Your task to perform on an android device: Open location settings Image 0: 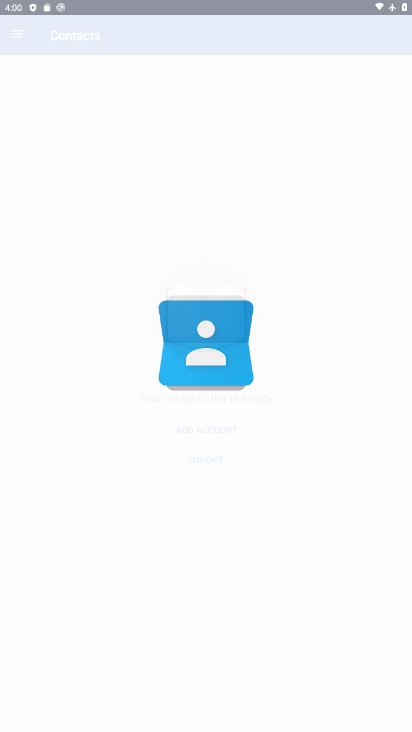
Step 0: drag from (209, 642) to (179, 125)
Your task to perform on an android device: Open location settings Image 1: 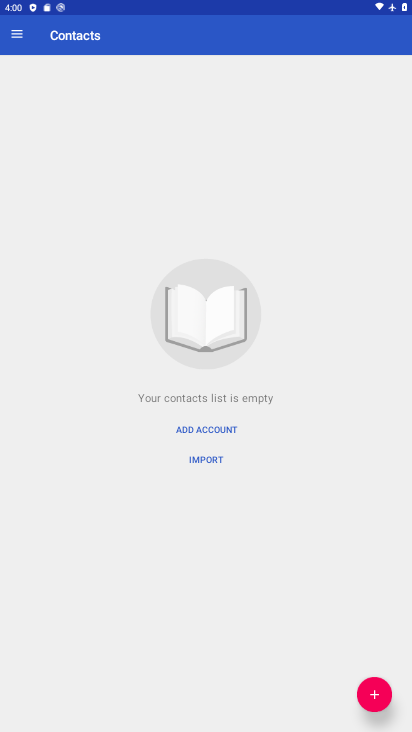
Step 1: press back button
Your task to perform on an android device: Open location settings Image 2: 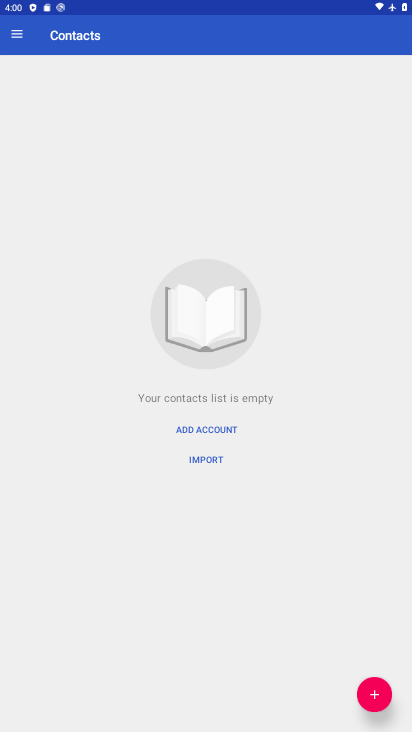
Step 2: press back button
Your task to perform on an android device: Open location settings Image 3: 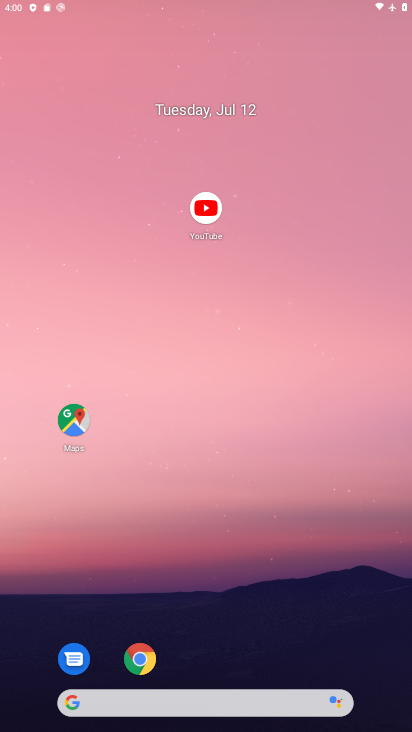
Step 3: press back button
Your task to perform on an android device: Open location settings Image 4: 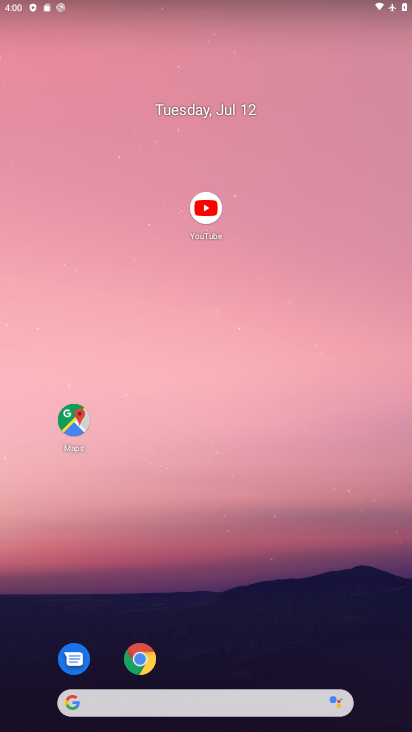
Step 4: press home button
Your task to perform on an android device: Open location settings Image 5: 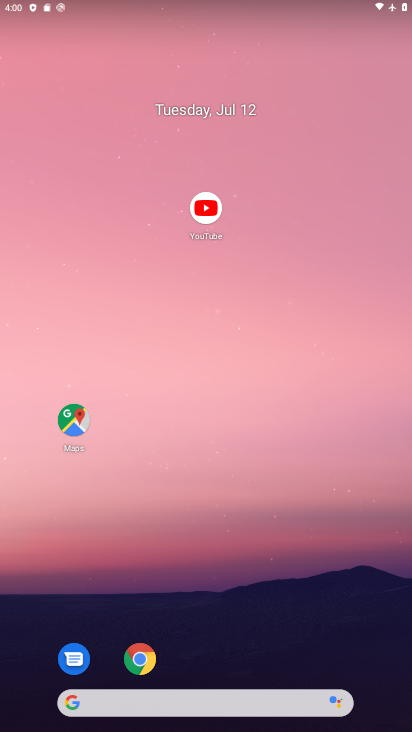
Step 5: drag from (286, 678) to (175, 75)
Your task to perform on an android device: Open location settings Image 6: 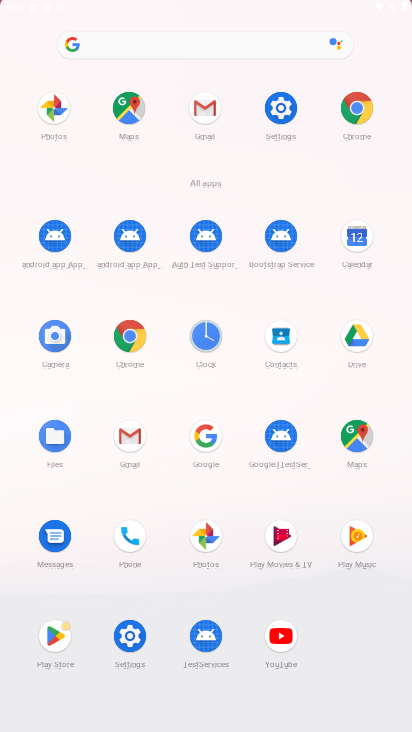
Step 6: drag from (285, 599) to (215, 161)
Your task to perform on an android device: Open location settings Image 7: 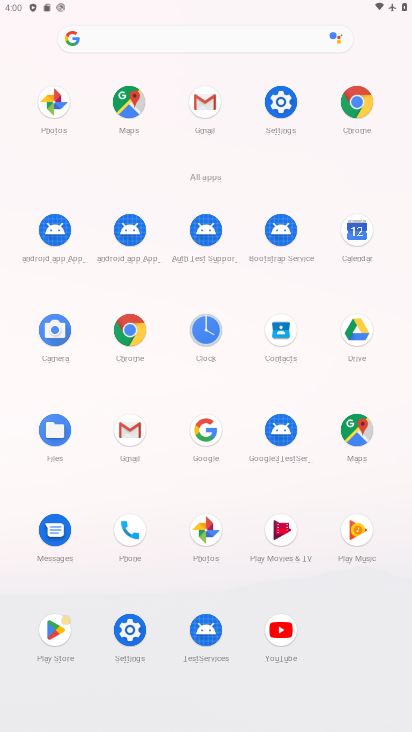
Step 7: click (122, 615)
Your task to perform on an android device: Open location settings Image 8: 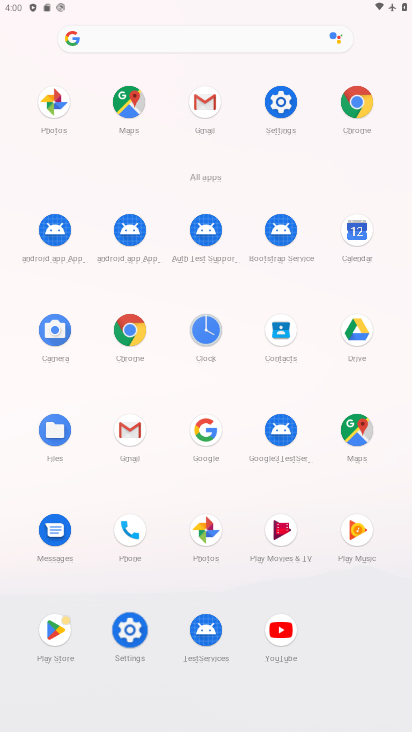
Step 8: click (126, 615)
Your task to perform on an android device: Open location settings Image 9: 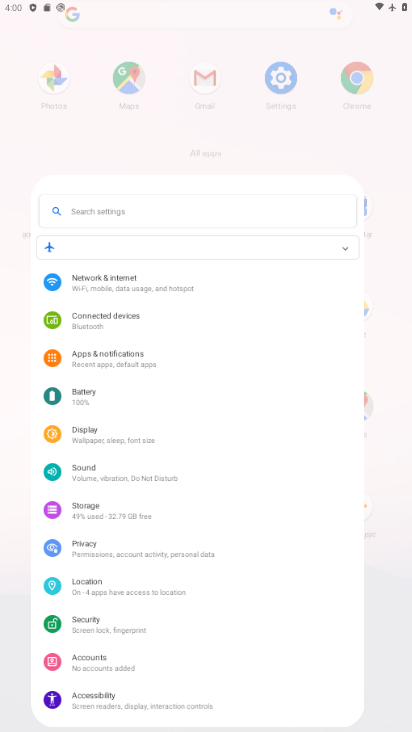
Step 9: click (127, 615)
Your task to perform on an android device: Open location settings Image 10: 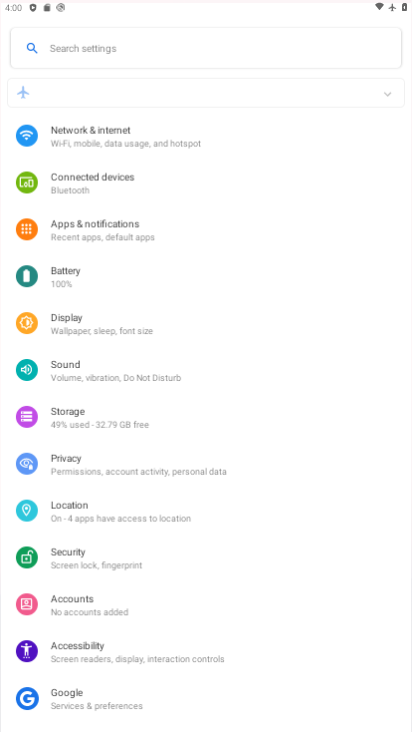
Step 10: click (134, 627)
Your task to perform on an android device: Open location settings Image 11: 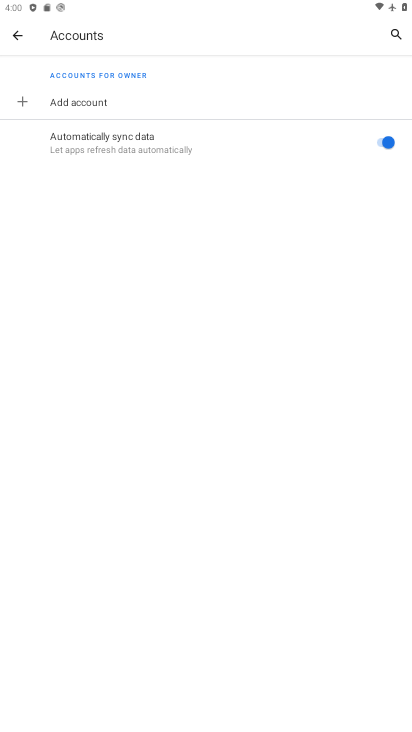
Step 11: click (15, 32)
Your task to perform on an android device: Open location settings Image 12: 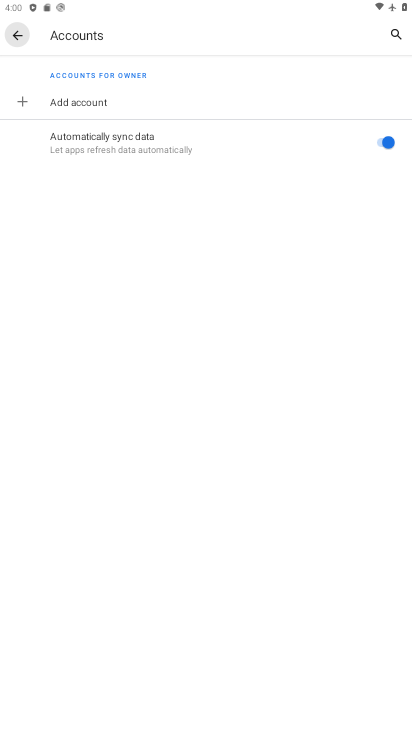
Step 12: click (15, 33)
Your task to perform on an android device: Open location settings Image 13: 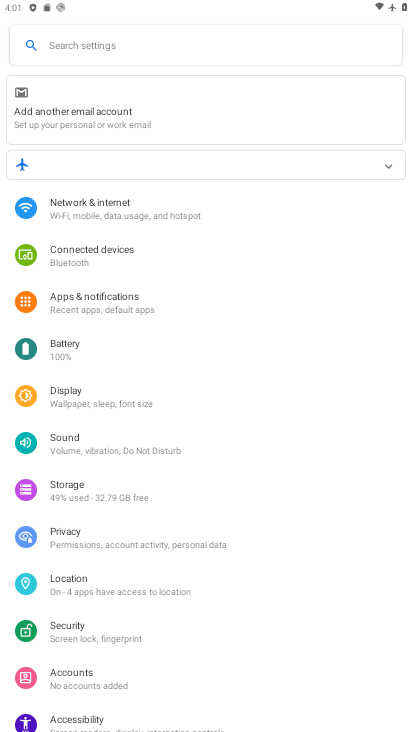
Step 13: click (77, 586)
Your task to perform on an android device: Open location settings Image 14: 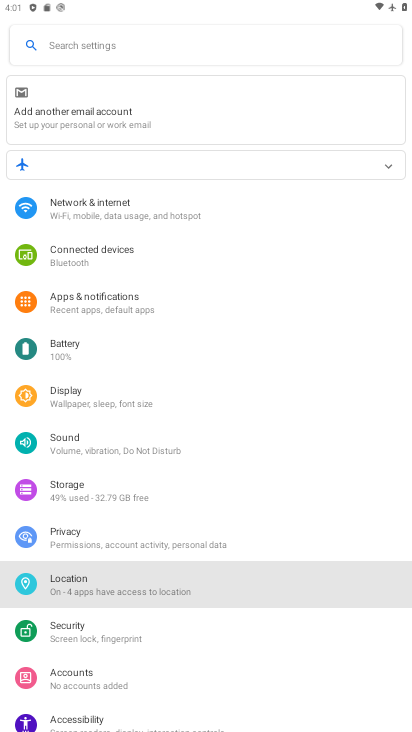
Step 14: click (78, 585)
Your task to perform on an android device: Open location settings Image 15: 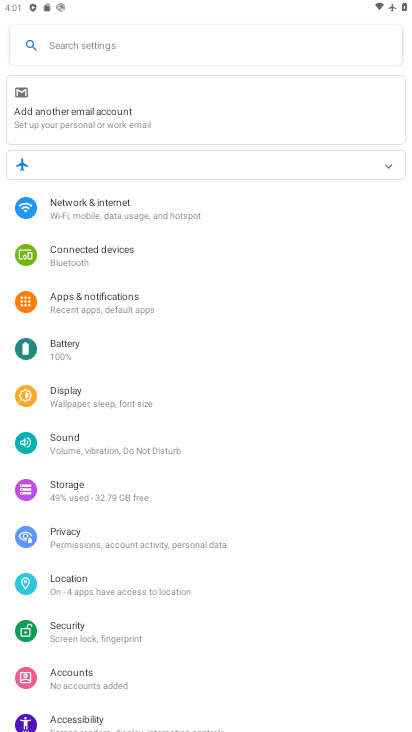
Step 15: click (78, 585)
Your task to perform on an android device: Open location settings Image 16: 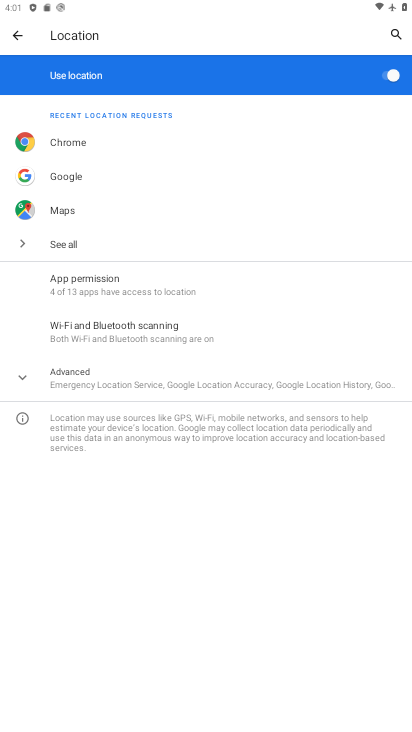
Step 16: click (73, 378)
Your task to perform on an android device: Open location settings Image 17: 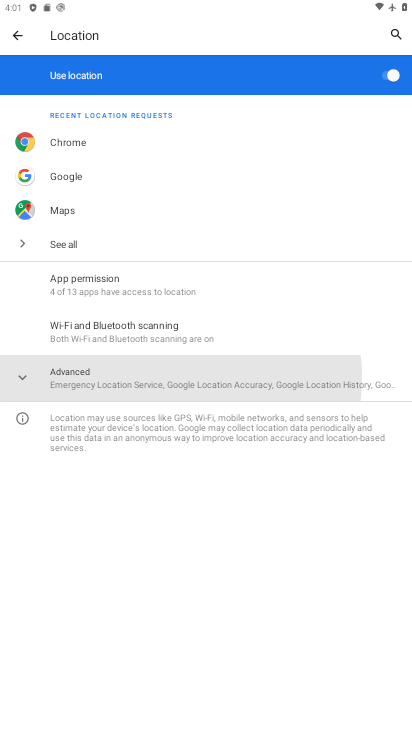
Step 17: click (73, 378)
Your task to perform on an android device: Open location settings Image 18: 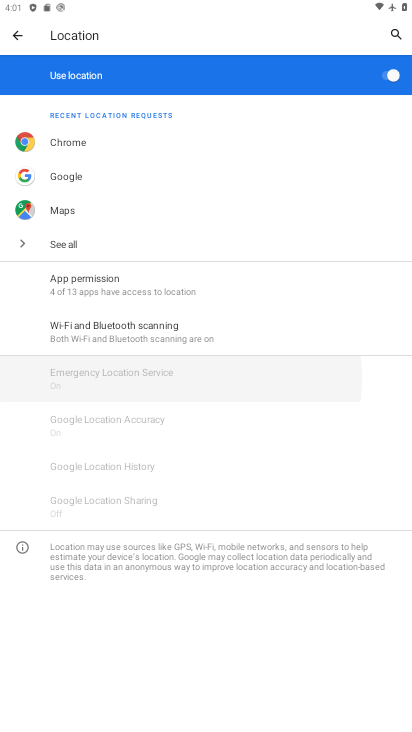
Step 18: click (73, 378)
Your task to perform on an android device: Open location settings Image 19: 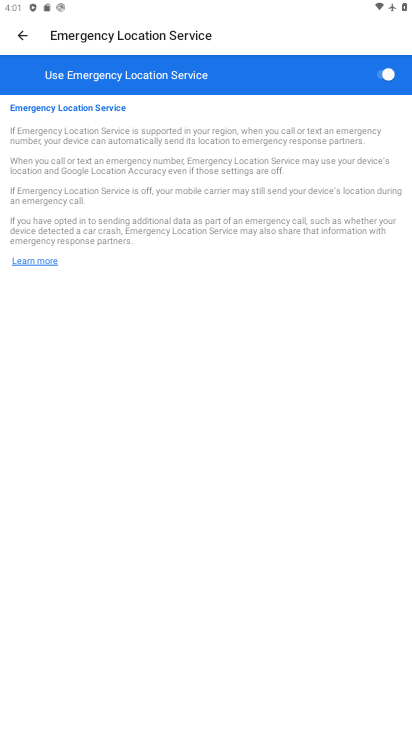
Step 19: click (14, 24)
Your task to perform on an android device: Open location settings Image 20: 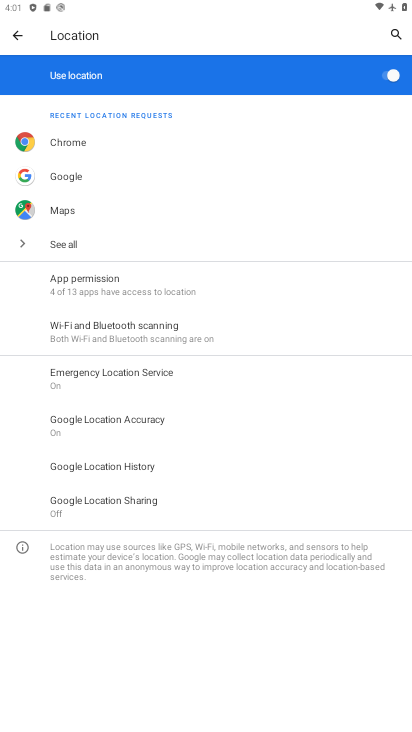
Step 20: task complete